Your task to perform on an android device: turn off notifications in google photos Image 0: 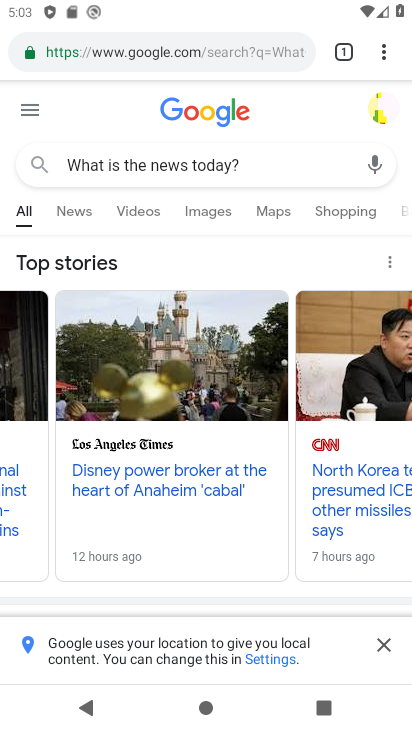
Step 0: press back button
Your task to perform on an android device: turn off notifications in google photos Image 1: 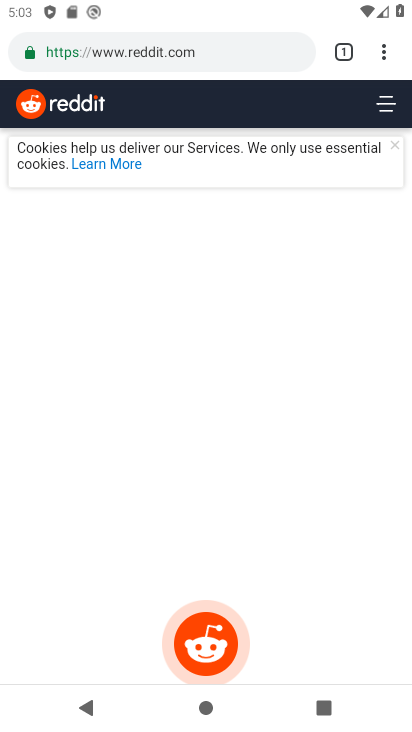
Step 1: press home button
Your task to perform on an android device: turn off notifications in google photos Image 2: 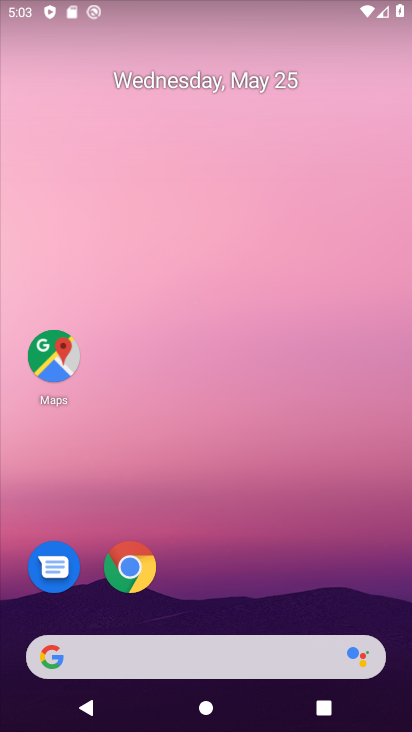
Step 2: drag from (232, 522) to (243, 43)
Your task to perform on an android device: turn off notifications in google photos Image 3: 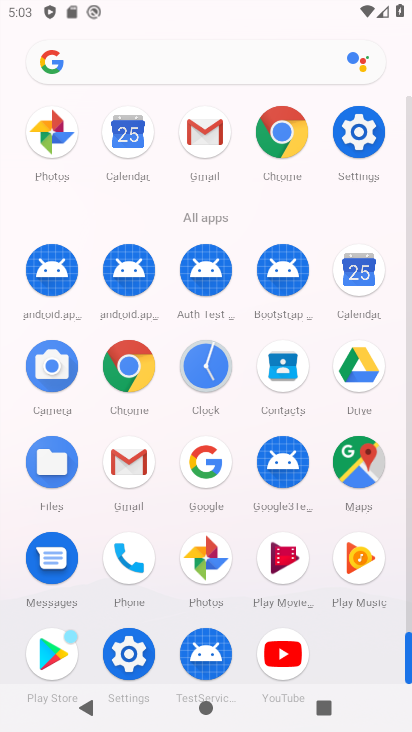
Step 3: drag from (10, 548) to (12, 199)
Your task to perform on an android device: turn off notifications in google photos Image 4: 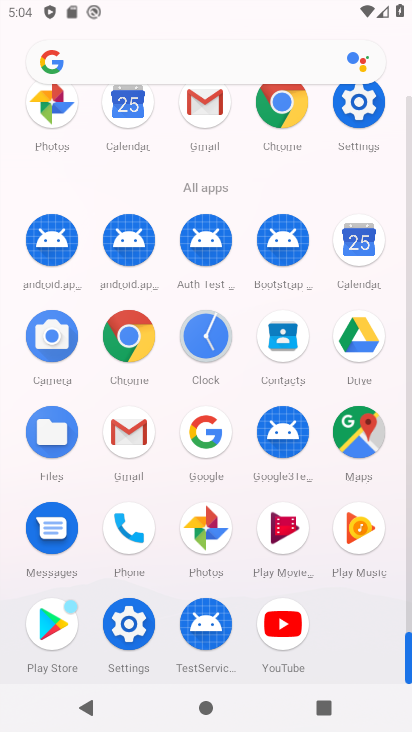
Step 4: click (206, 526)
Your task to perform on an android device: turn off notifications in google photos Image 5: 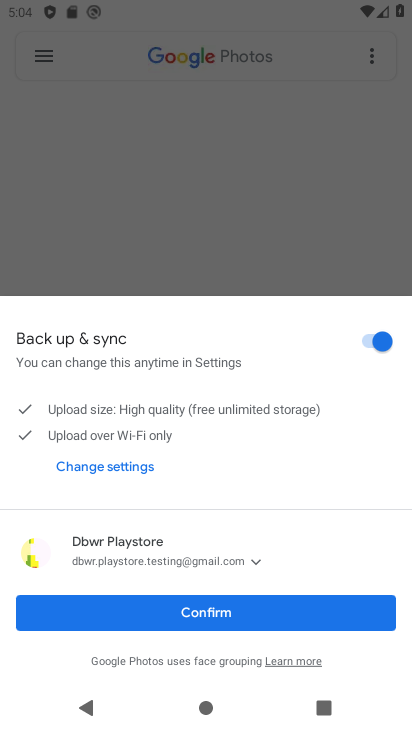
Step 5: click (217, 614)
Your task to perform on an android device: turn off notifications in google photos Image 6: 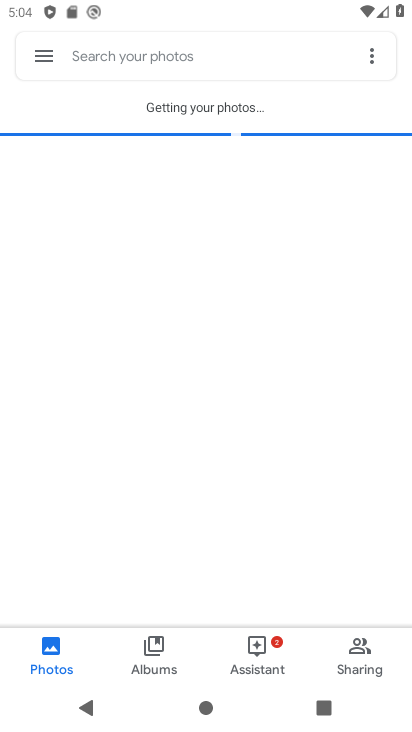
Step 6: click (44, 52)
Your task to perform on an android device: turn off notifications in google photos Image 7: 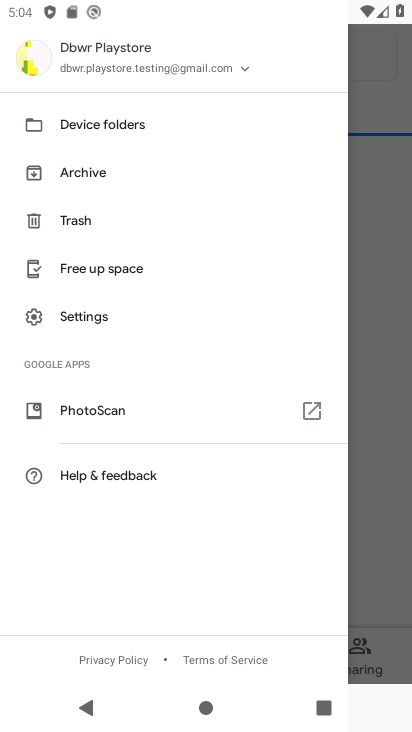
Step 7: click (85, 316)
Your task to perform on an android device: turn off notifications in google photos Image 8: 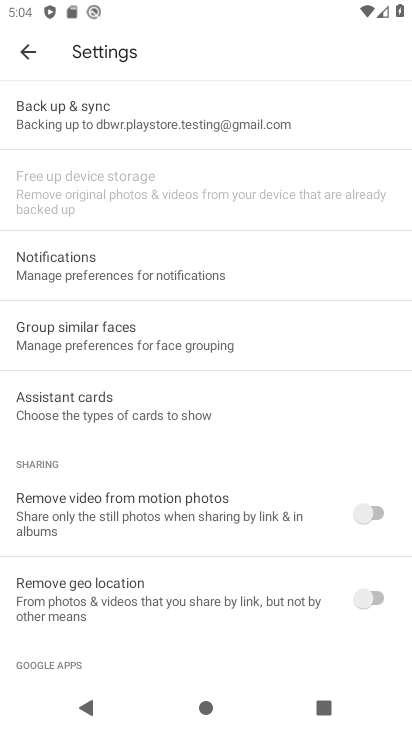
Step 8: click (156, 264)
Your task to perform on an android device: turn off notifications in google photos Image 9: 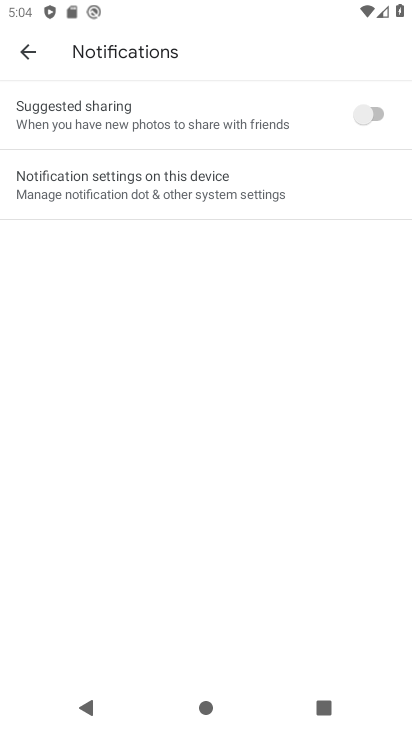
Step 9: click (170, 192)
Your task to perform on an android device: turn off notifications in google photos Image 10: 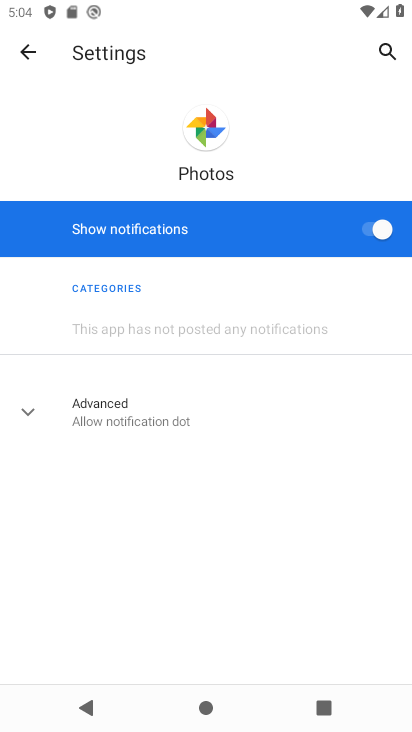
Step 10: click (381, 220)
Your task to perform on an android device: turn off notifications in google photos Image 11: 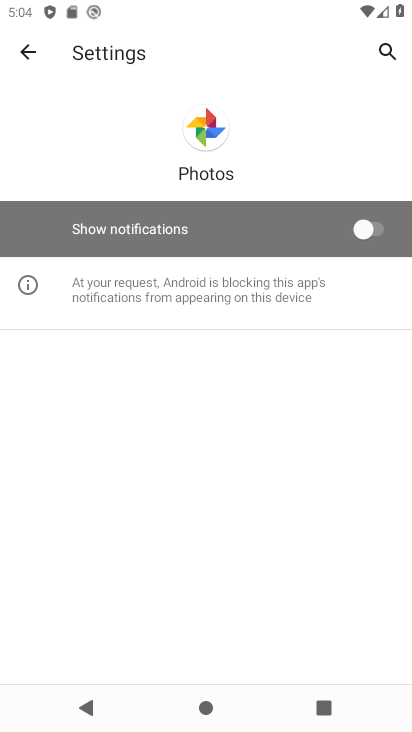
Step 11: task complete